Your task to perform on an android device: install app "Clock" Image 0: 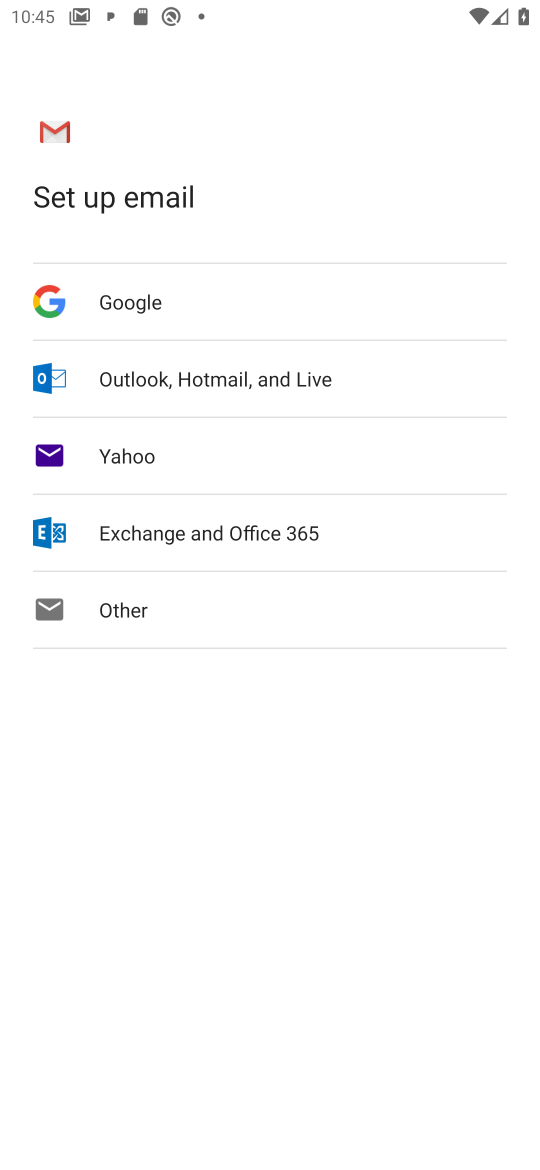
Step 0: press home button
Your task to perform on an android device: install app "Clock" Image 1: 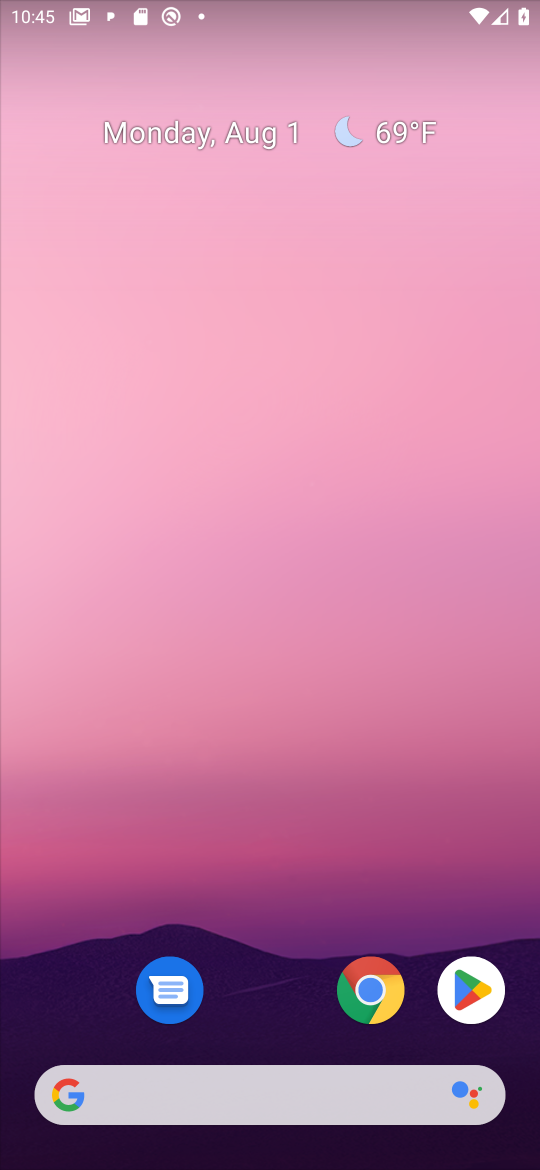
Step 1: click (464, 965)
Your task to perform on an android device: install app "Clock" Image 2: 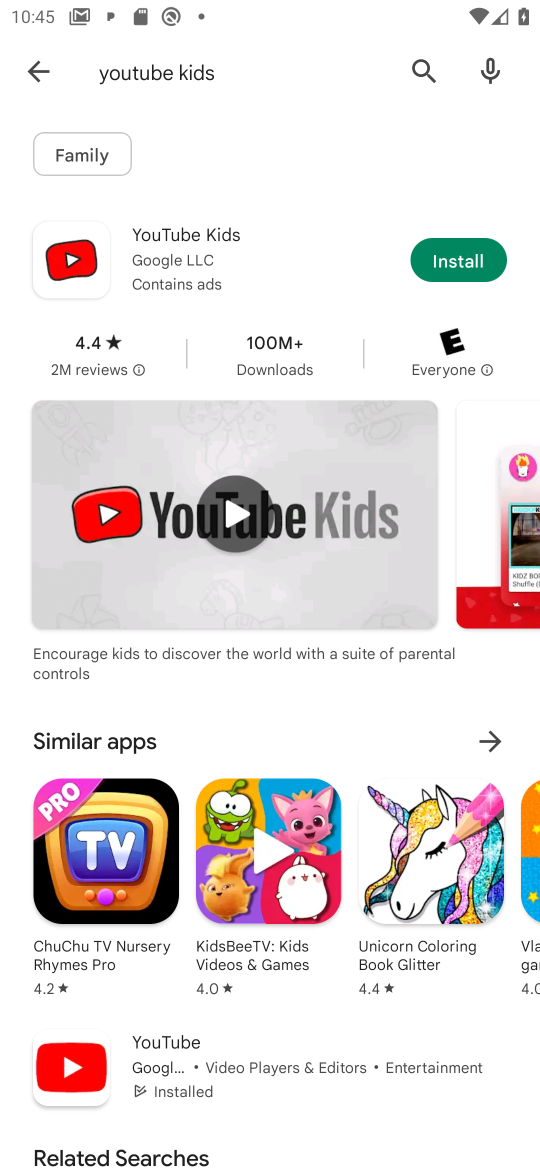
Step 2: click (420, 70)
Your task to perform on an android device: install app "Clock" Image 3: 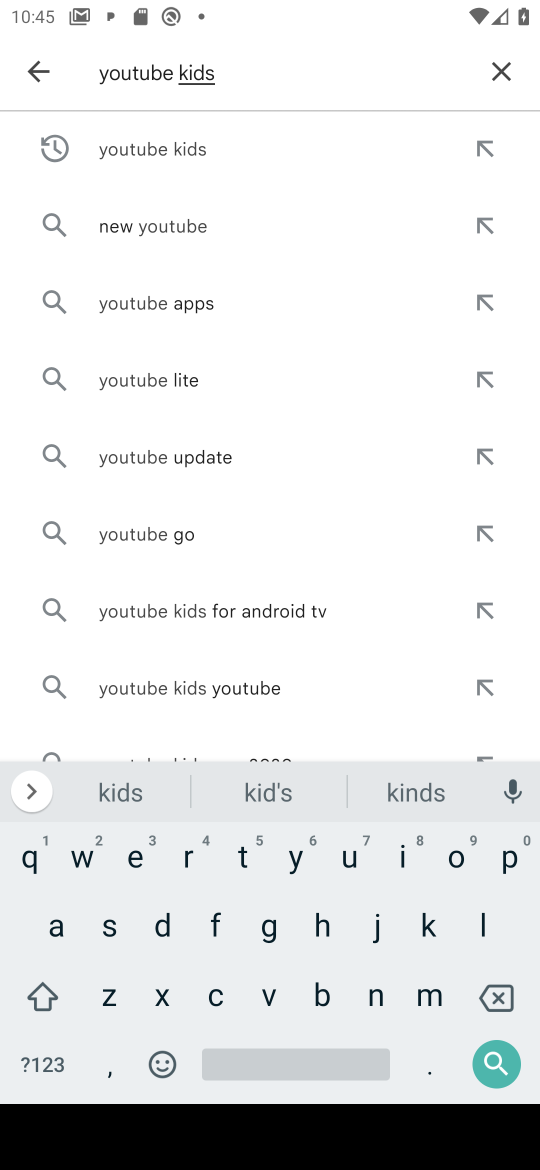
Step 3: click (491, 71)
Your task to perform on an android device: install app "Clock" Image 4: 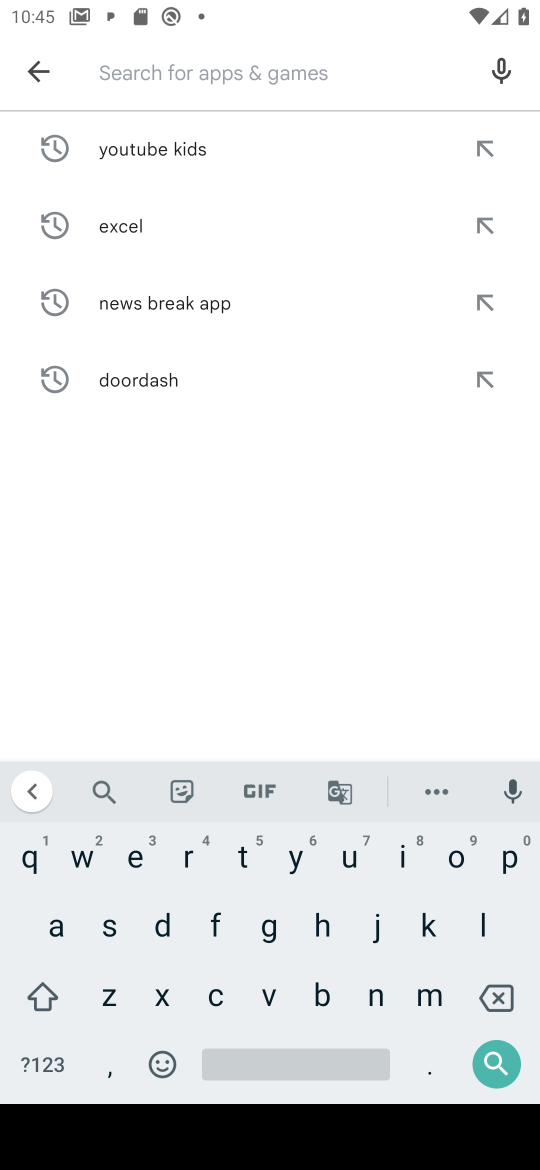
Step 4: click (213, 1007)
Your task to perform on an android device: install app "Clock" Image 5: 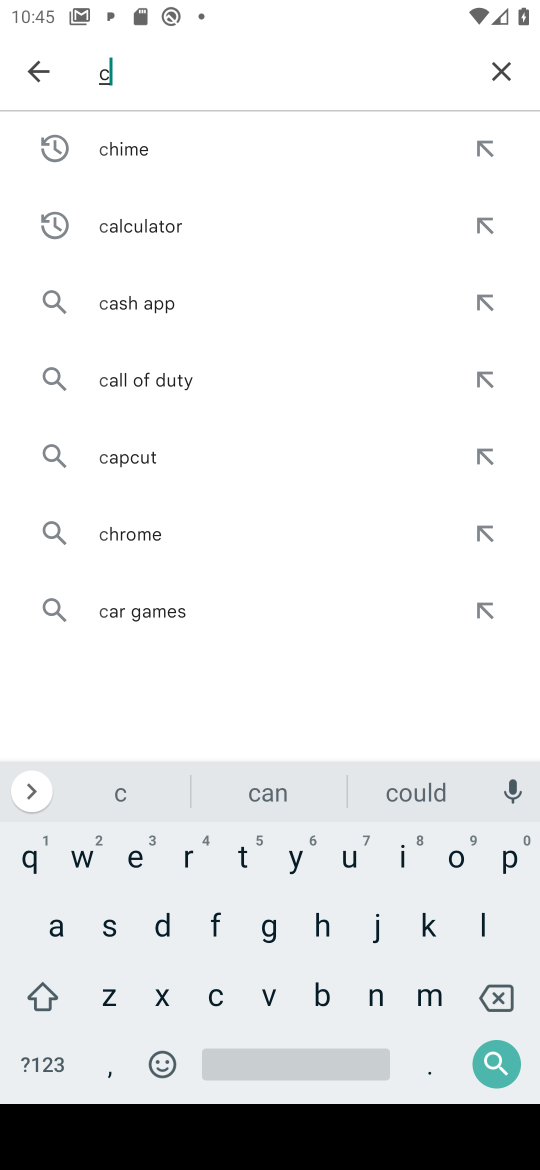
Step 5: click (486, 932)
Your task to perform on an android device: install app "Clock" Image 6: 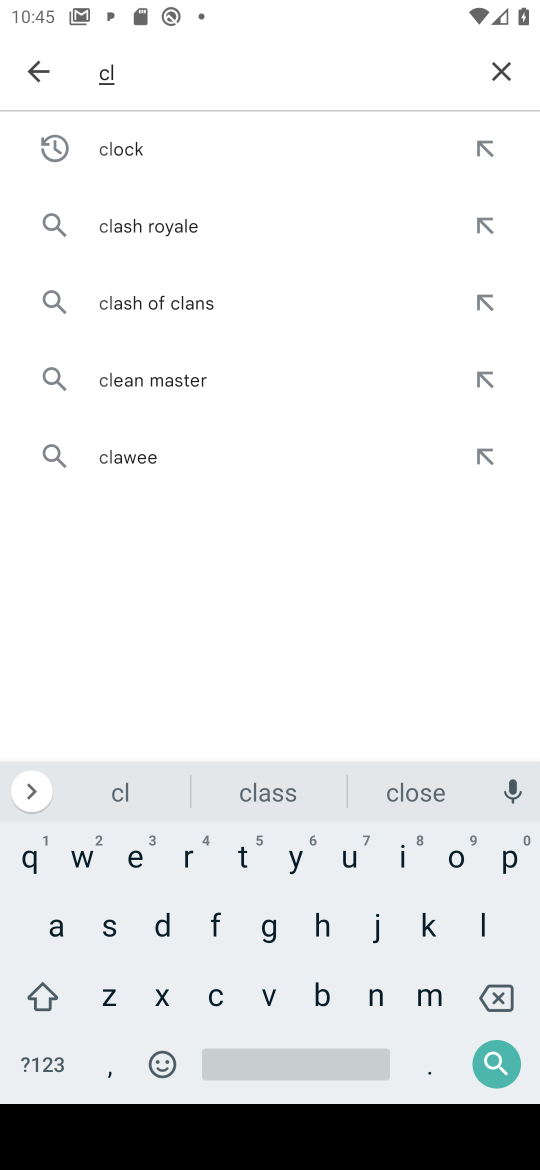
Step 6: click (111, 153)
Your task to perform on an android device: install app "Clock" Image 7: 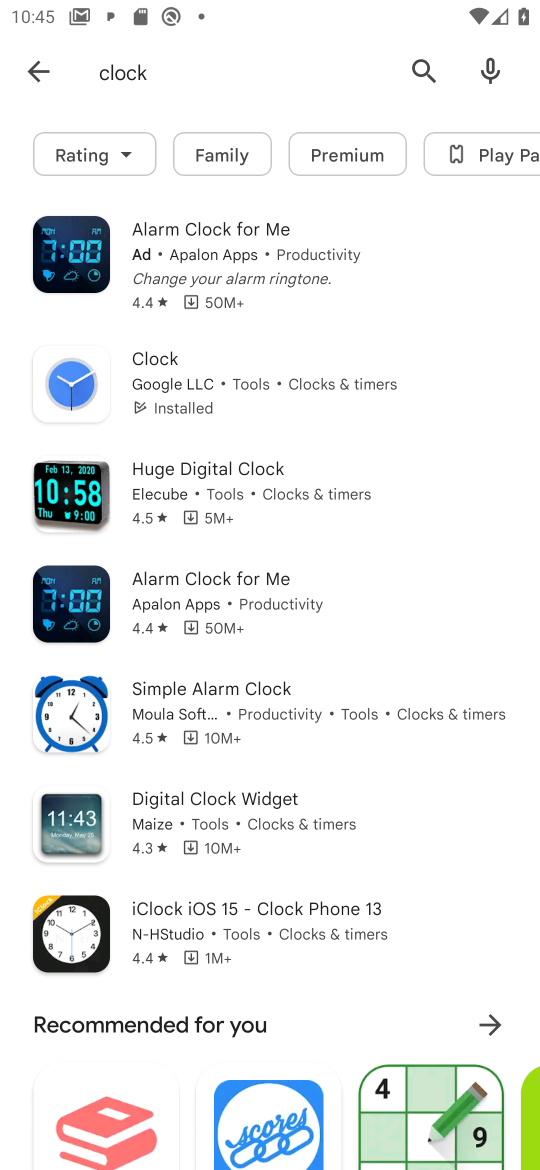
Step 7: click (211, 382)
Your task to perform on an android device: install app "Clock" Image 8: 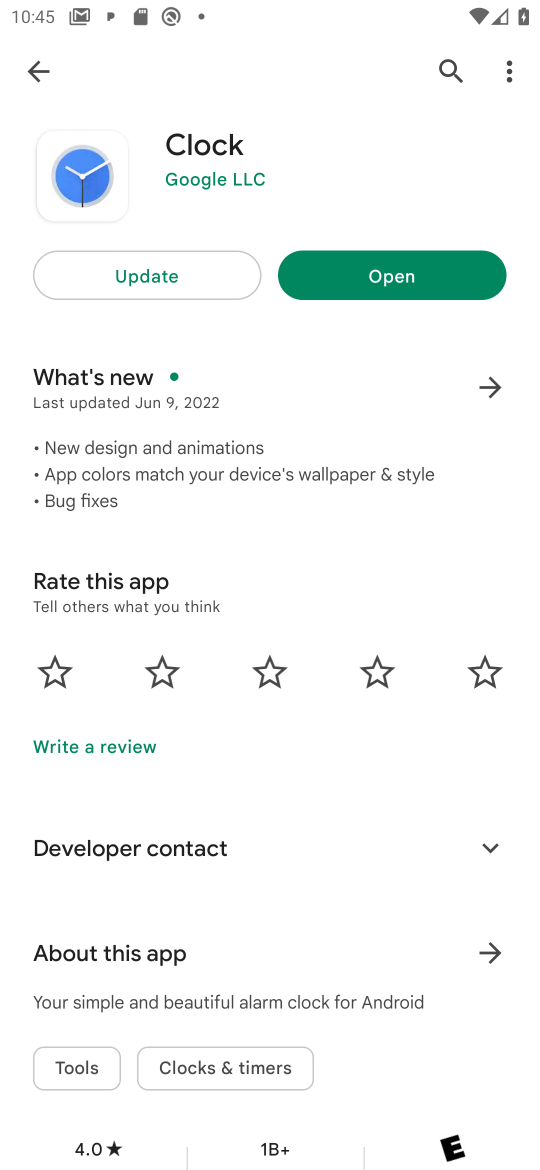
Step 8: click (155, 263)
Your task to perform on an android device: install app "Clock" Image 9: 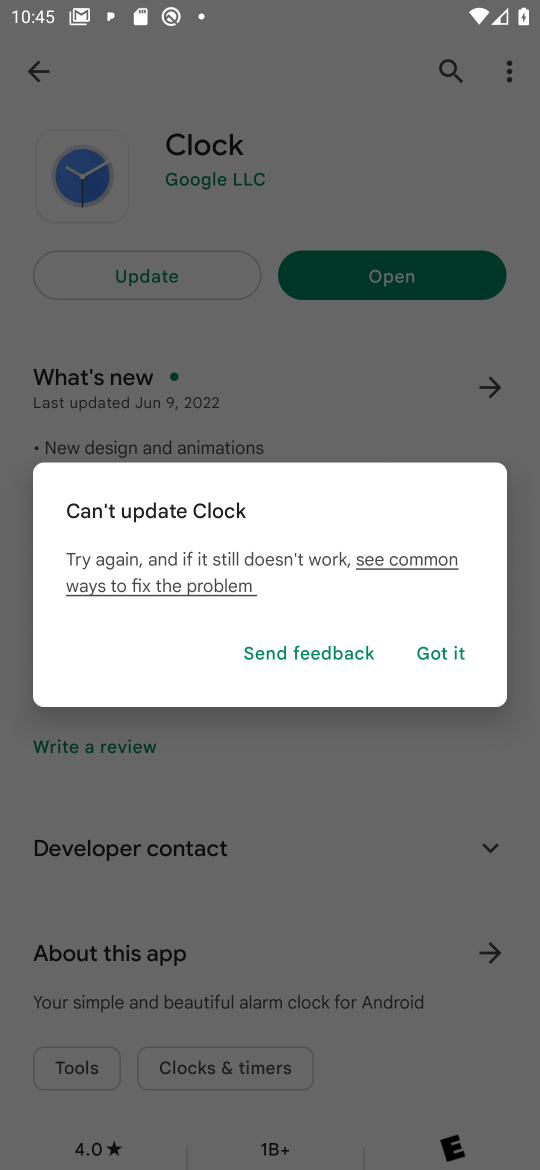
Step 9: click (428, 639)
Your task to perform on an android device: install app "Clock" Image 10: 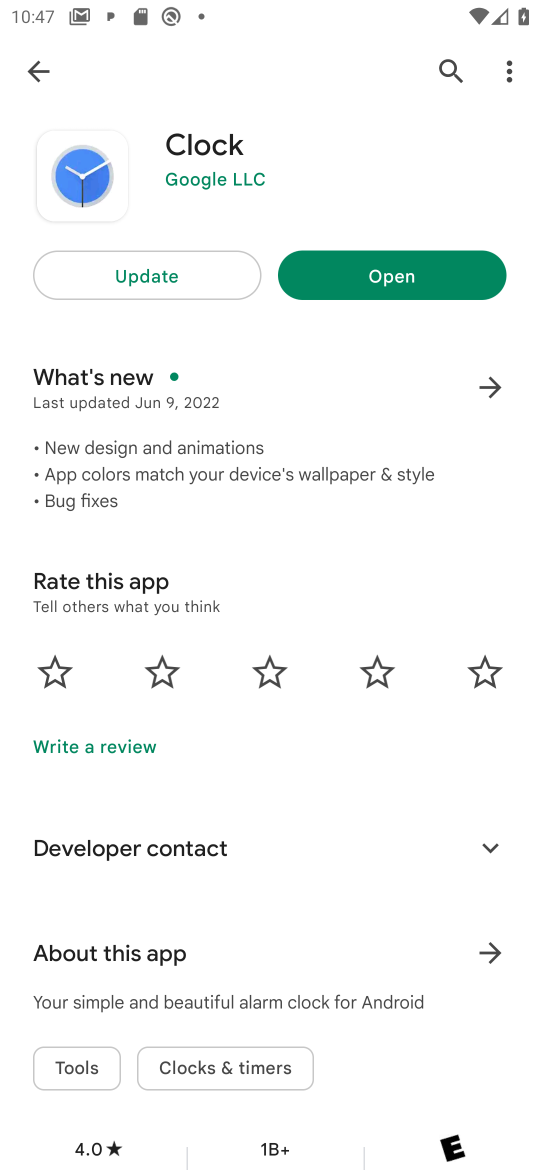
Step 10: task complete